Your task to perform on an android device: Search for "logitech g pro" on costco.com, select the first entry, add it to the cart, then select checkout. Image 0: 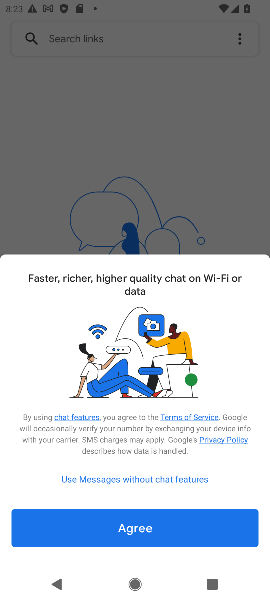
Step 0: press home button
Your task to perform on an android device: Search for "logitech g pro" on costco.com, select the first entry, add it to the cart, then select checkout. Image 1: 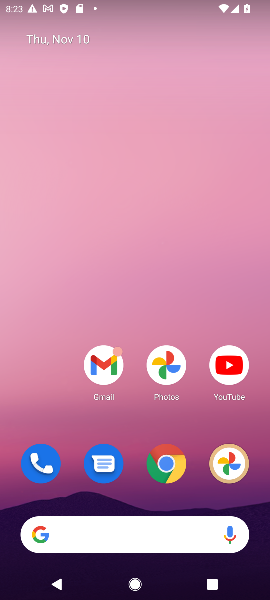
Step 1: click (160, 461)
Your task to perform on an android device: Search for "logitech g pro" on costco.com, select the first entry, add it to the cart, then select checkout. Image 2: 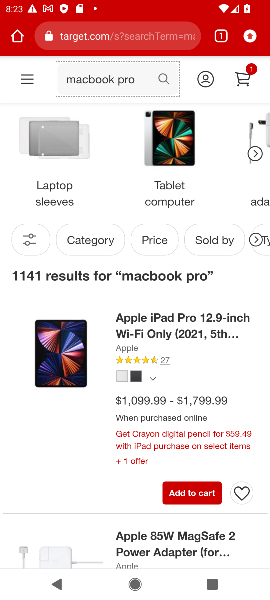
Step 2: click (125, 36)
Your task to perform on an android device: Search for "logitech g pro" on costco.com, select the first entry, add it to the cart, then select checkout. Image 3: 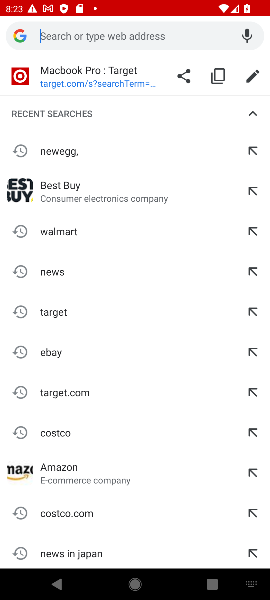
Step 3: click (56, 429)
Your task to perform on an android device: Search for "logitech g pro" on costco.com, select the first entry, add it to the cart, then select checkout. Image 4: 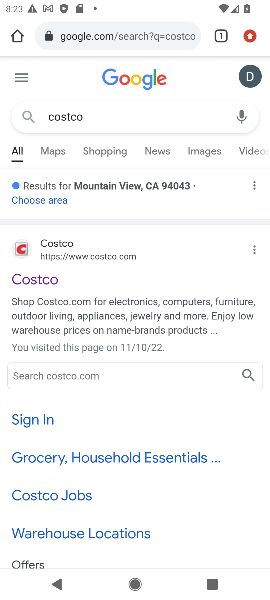
Step 4: click (43, 277)
Your task to perform on an android device: Search for "logitech g pro" on costco.com, select the first entry, add it to the cart, then select checkout. Image 5: 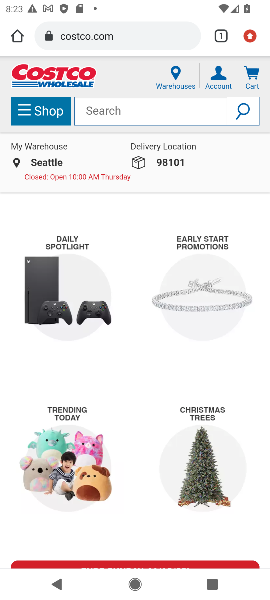
Step 5: click (142, 110)
Your task to perform on an android device: Search for "logitech g pro" on costco.com, select the first entry, add it to the cart, then select checkout. Image 6: 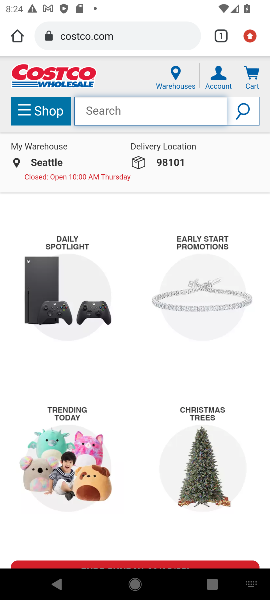
Step 6: type "logitech g pro"
Your task to perform on an android device: Search for "logitech g pro" on costco.com, select the first entry, add it to the cart, then select checkout. Image 7: 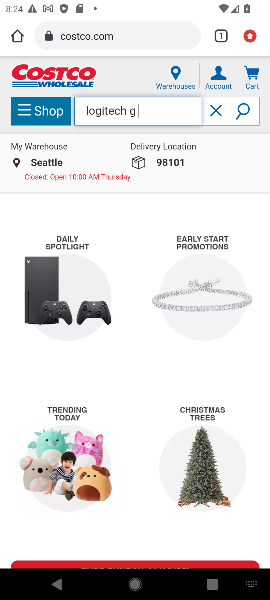
Step 7: press enter
Your task to perform on an android device: Search for "logitech g pro" on costco.com, select the first entry, add it to the cart, then select checkout. Image 8: 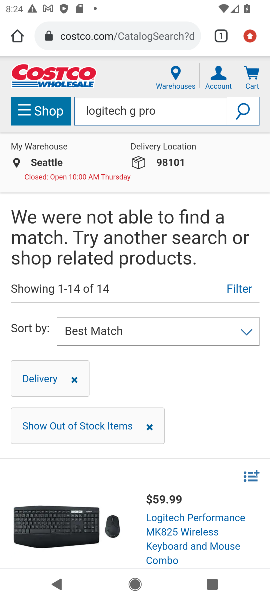
Step 8: task complete